Your task to perform on an android device: check data usage Image 0: 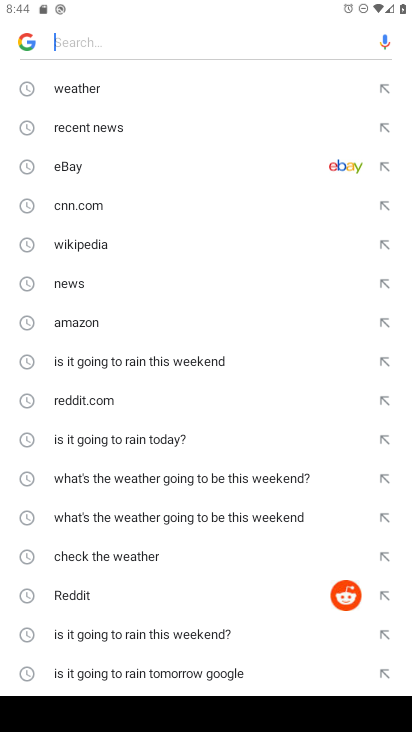
Step 0: press home button
Your task to perform on an android device: check data usage Image 1: 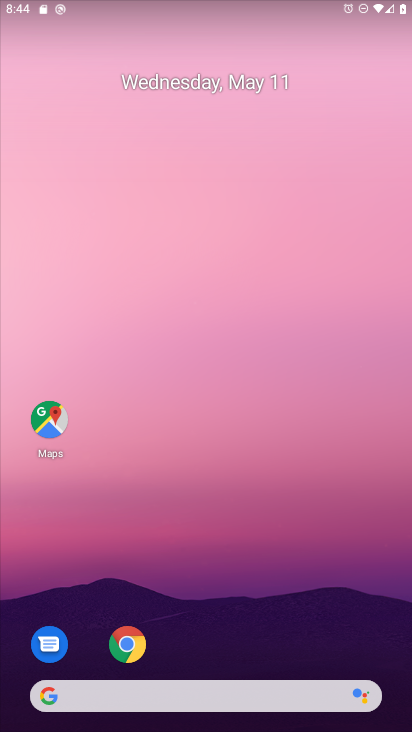
Step 1: drag from (227, 578) to (181, 25)
Your task to perform on an android device: check data usage Image 2: 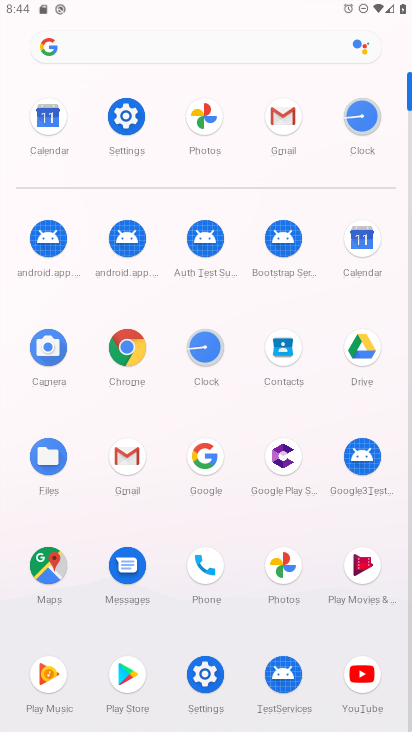
Step 2: click (127, 121)
Your task to perform on an android device: check data usage Image 3: 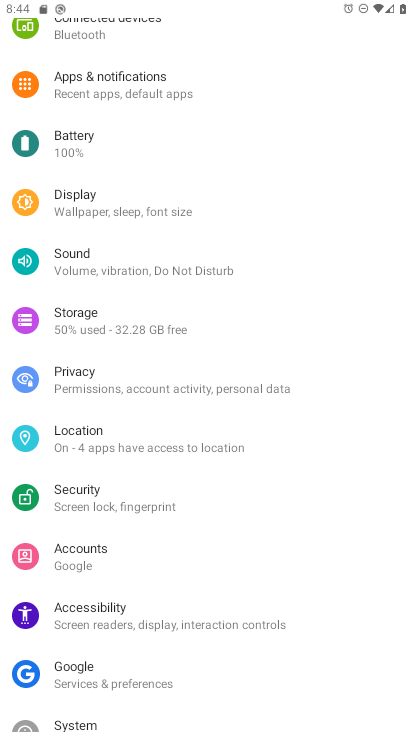
Step 3: drag from (136, 131) to (185, 598)
Your task to perform on an android device: check data usage Image 4: 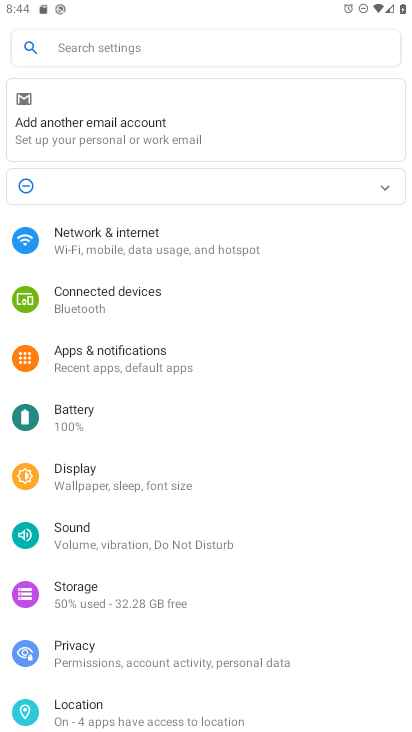
Step 4: click (104, 236)
Your task to perform on an android device: check data usage Image 5: 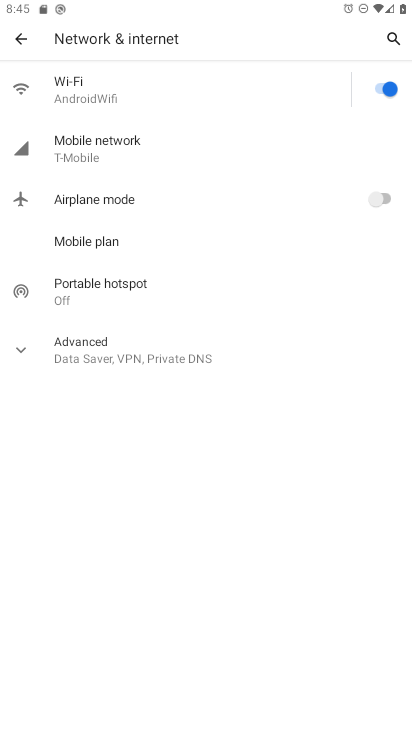
Step 5: click (110, 146)
Your task to perform on an android device: check data usage Image 6: 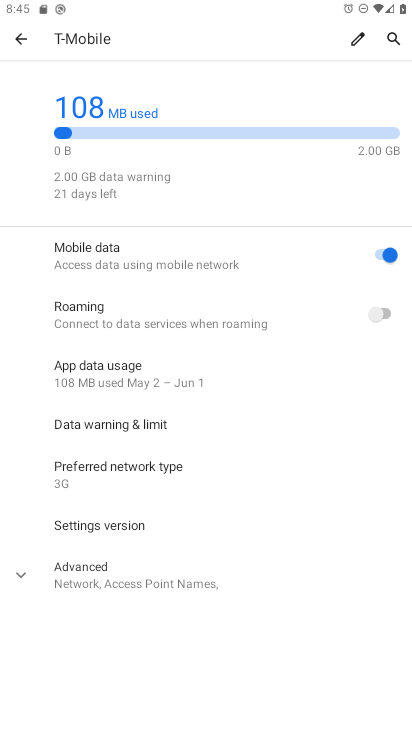
Step 6: task complete